Your task to perform on an android device: Find coffee shops on Maps Image 0: 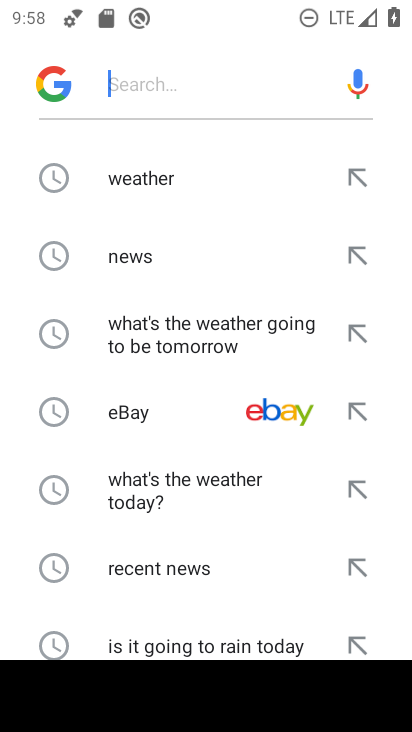
Step 0: press home button
Your task to perform on an android device: Find coffee shops on Maps Image 1: 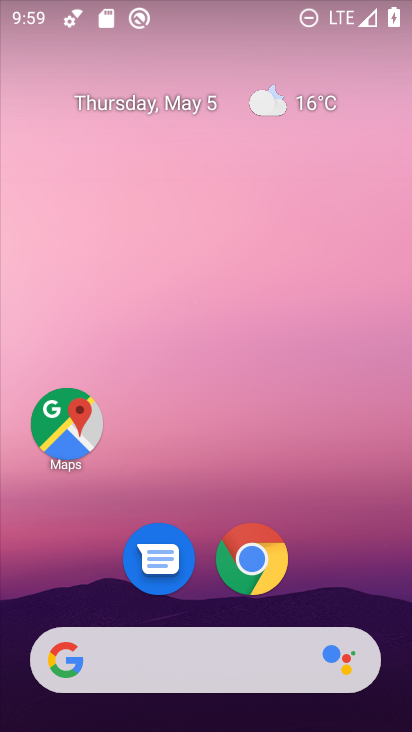
Step 1: drag from (391, 627) to (222, 113)
Your task to perform on an android device: Find coffee shops on Maps Image 2: 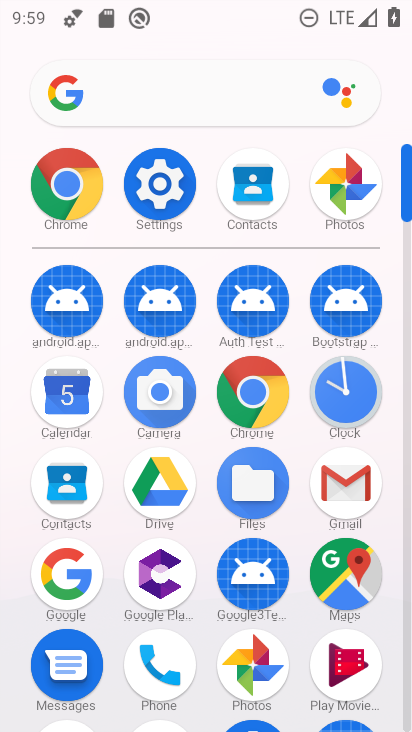
Step 2: click (222, 110)
Your task to perform on an android device: Find coffee shops on Maps Image 3: 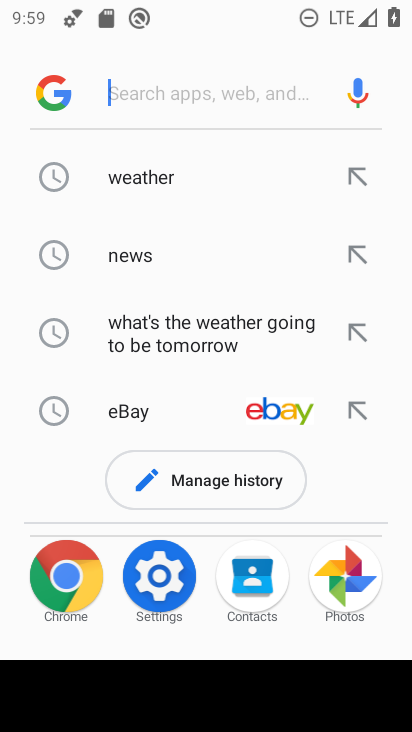
Step 3: press back button
Your task to perform on an android device: Find coffee shops on Maps Image 4: 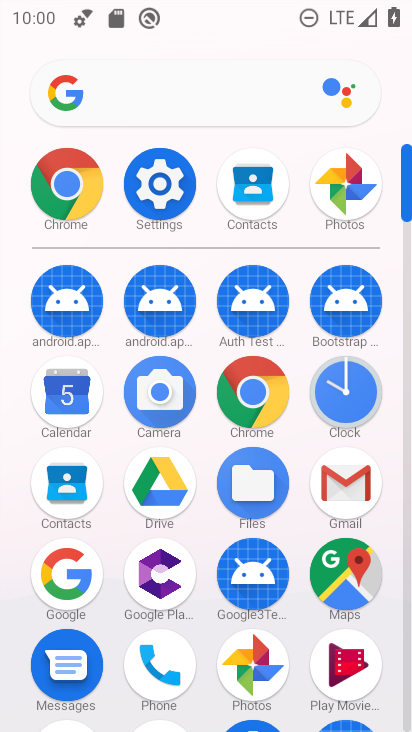
Step 4: click (324, 572)
Your task to perform on an android device: Find coffee shops on Maps Image 5: 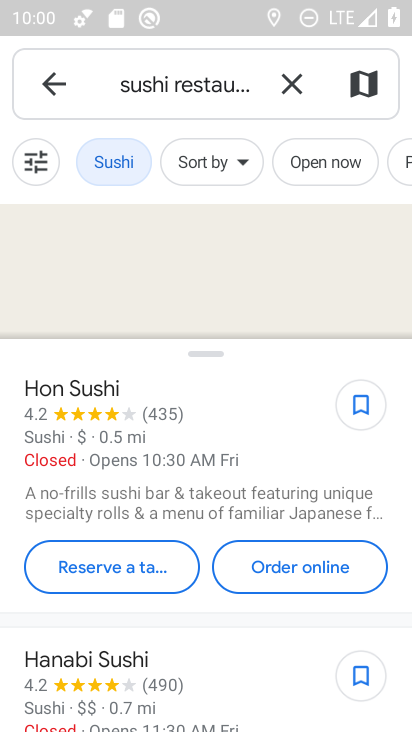
Step 5: click (288, 84)
Your task to perform on an android device: Find coffee shops on Maps Image 6: 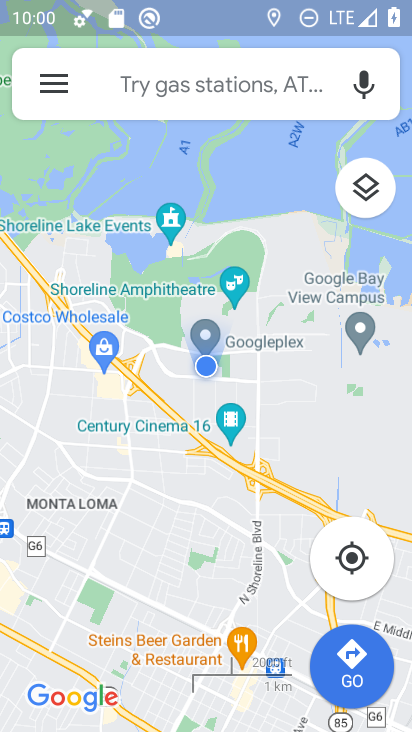
Step 6: click (232, 87)
Your task to perform on an android device: Find coffee shops on Maps Image 7: 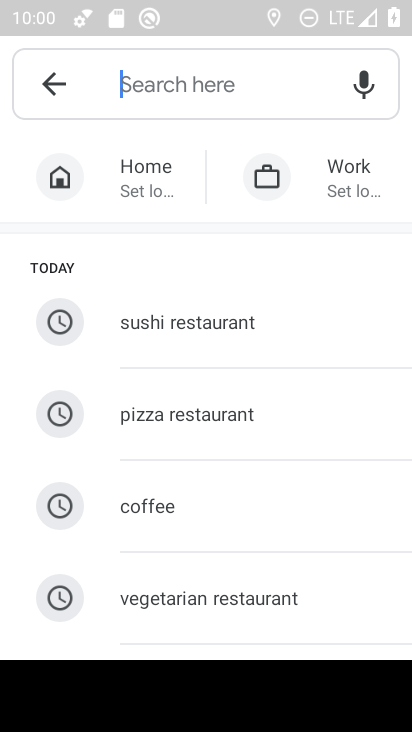
Step 7: click (263, 524)
Your task to perform on an android device: Find coffee shops on Maps Image 8: 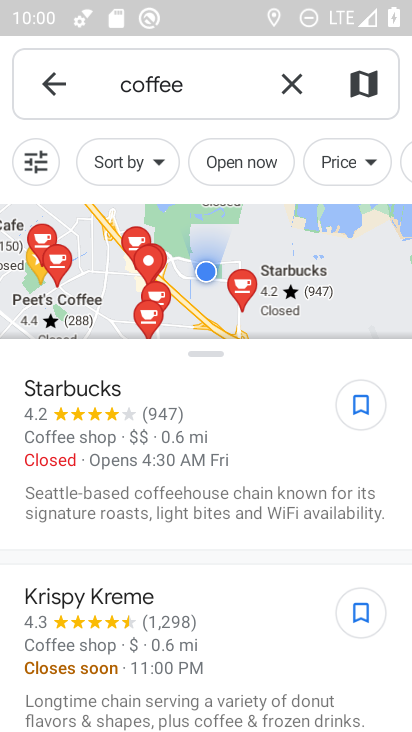
Step 8: task complete